Your task to perform on an android device: install app "Facebook" Image 0: 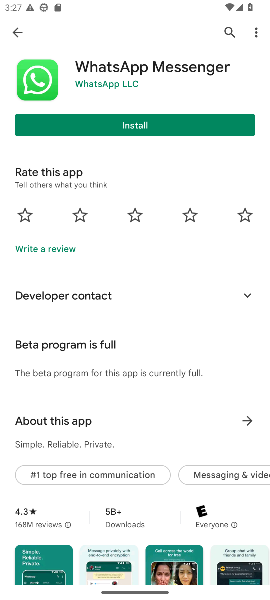
Step 0: click (223, 27)
Your task to perform on an android device: install app "Facebook" Image 1: 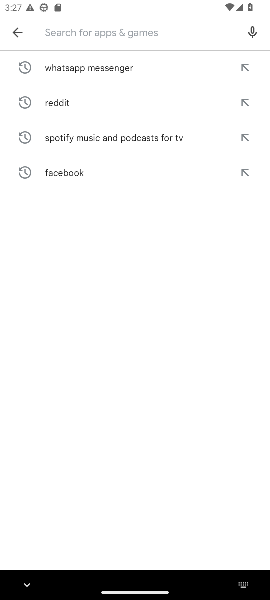
Step 1: type "Facebook"
Your task to perform on an android device: install app "Facebook" Image 2: 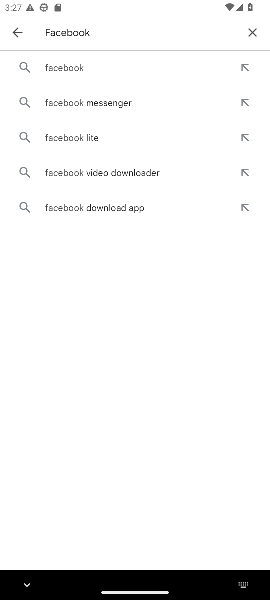
Step 2: click (64, 70)
Your task to perform on an android device: install app "Facebook" Image 3: 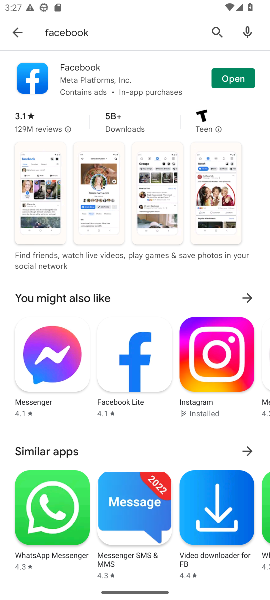
Step 3: task complete